Your task to perform on an android device: turn smart compose on in the gmail app Image 0: 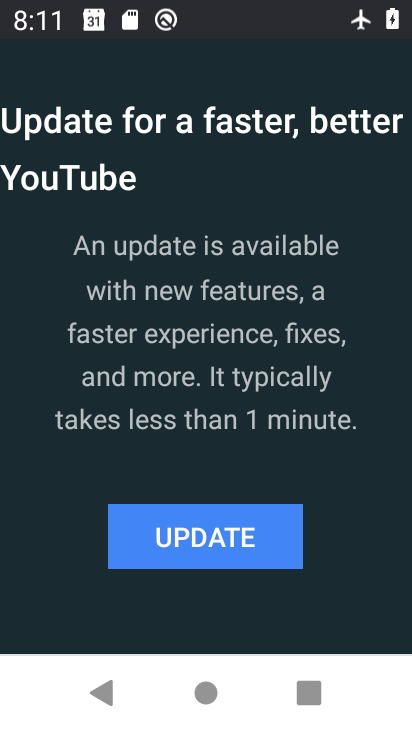
Step 0: press back button
Your task to perform on an android device: turn smart compose on in the gmail app Image 1: 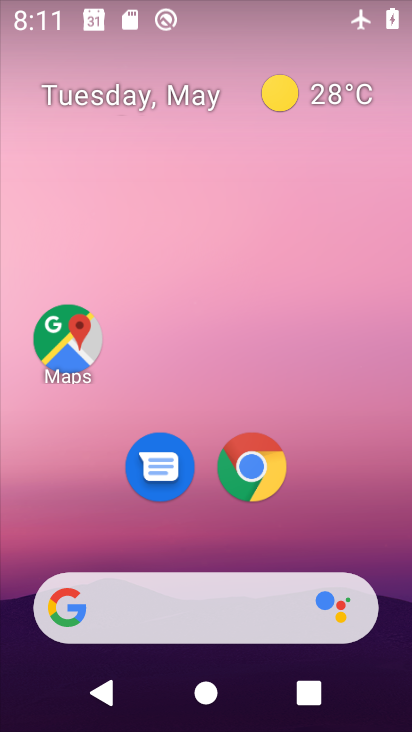
Step 1: drag from (384, 694) to (387, 220)
Your task to perform on an android device: turn smart compose on in the gmail app Image 2: 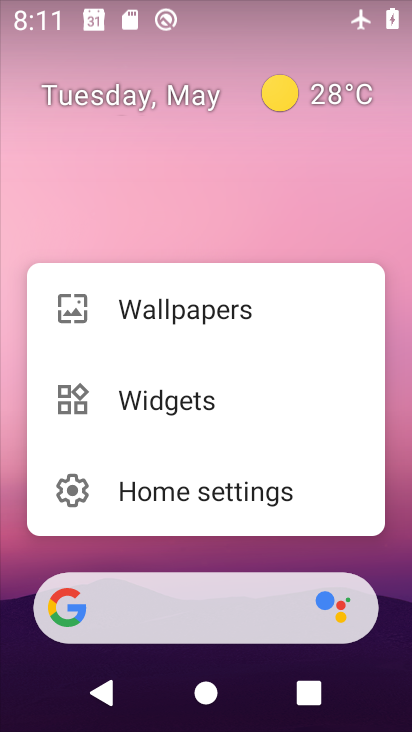
Step 2: click (373, 172)
Your task to perform on an android device: turn smart compose on in the gmail app Image 3: 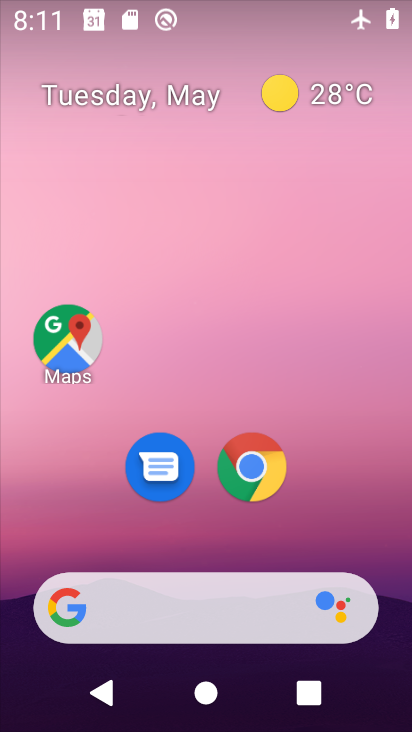
Step 3: drag from (391, 674) to (411, 261)
Your task to perform on an android device: turn smart compose on in the gmail app Image 4: 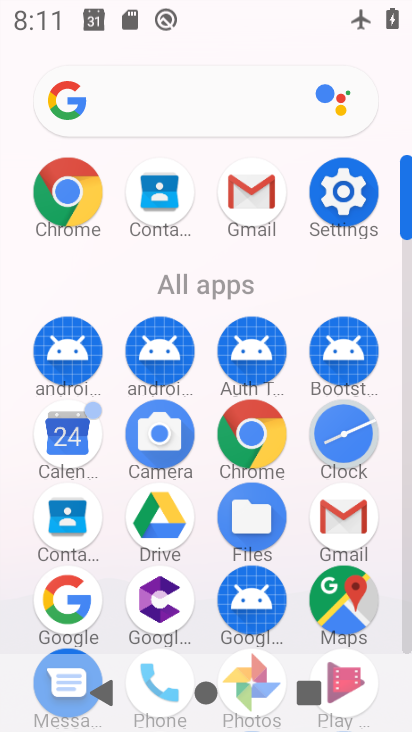
Step 4: click (248, 186)
Your task to perform on an android device: turn smart compose on in the gmail app Image 5: 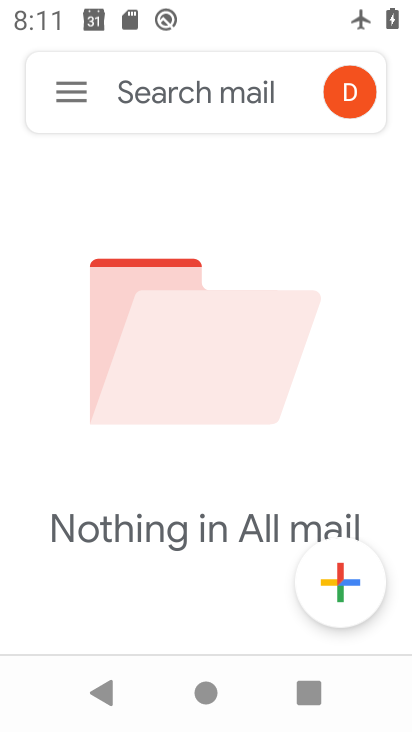
Step 5: click (69, 91)
Your task to perform on an android device: turn smart compose on in the gmail app Image 6: 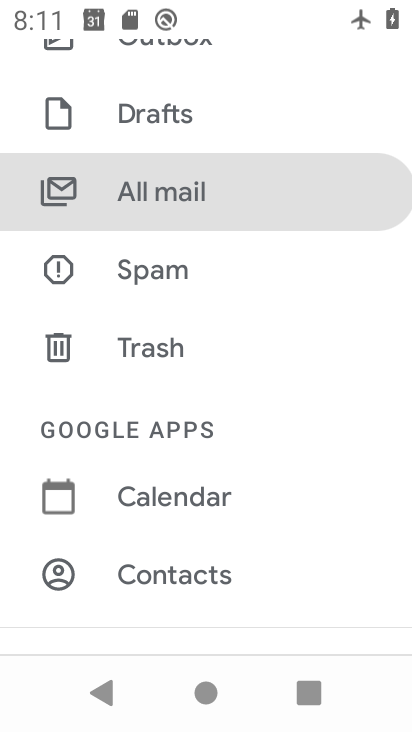
Step 6: drag from (259, 580) to (308, 199)
Your task to perform on an android device: turn smart compose on in the gmail app Image 7: 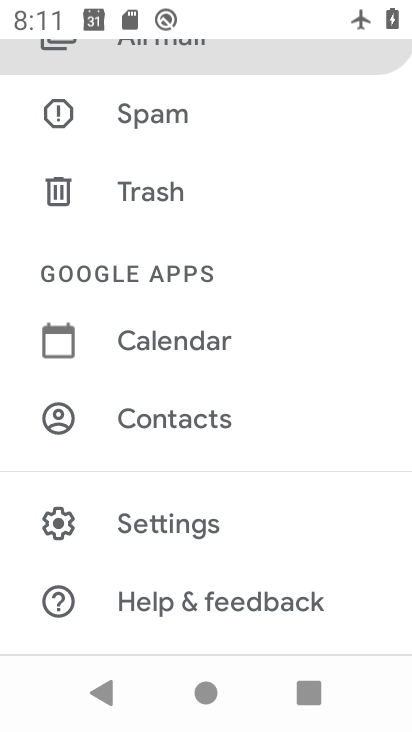
Step 7: click (107, 513)
Your task to perform on an android device: turn smart compose on in the gmail app Image 8: 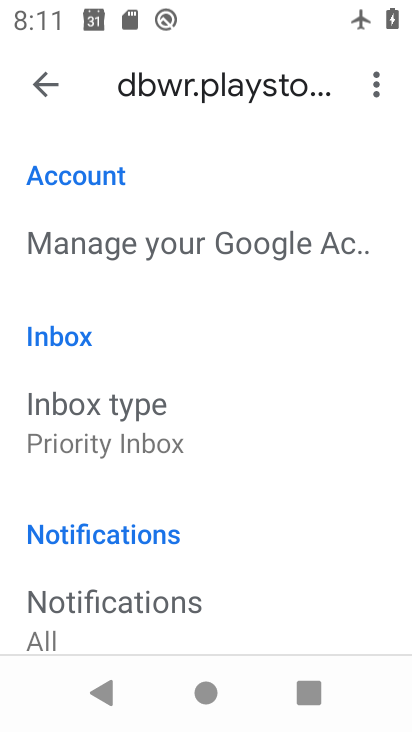
Step 8: task complete